Your task to perform on an android device: Open the phone app and click the voicemail tab. Image 0: 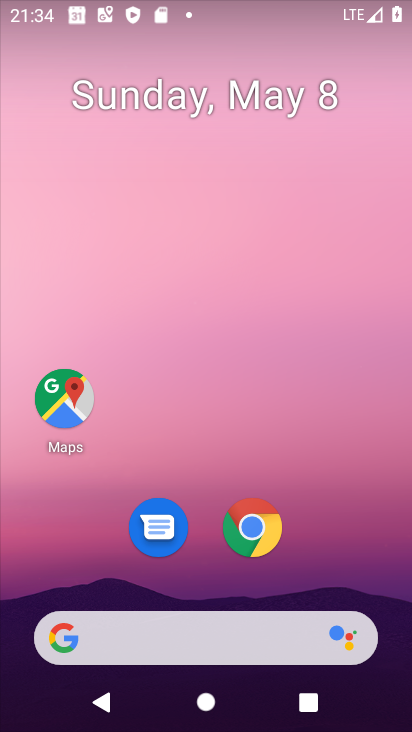
Step 0: drag from (217, 548) to (285, 85)
Your task to perform on an android device: Open the phone app and click the voicemail tab. Image 1: 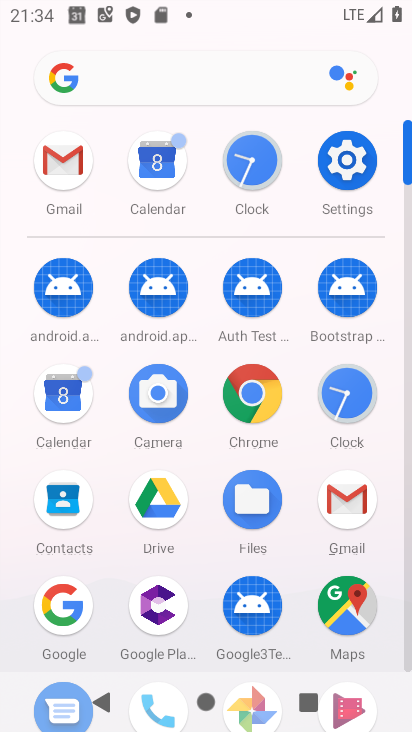
Step 1: drag from (207, 549) to (234, 268)
Your task to perform on an android device: Open the phone app and click the voicemail tab. Image 2: 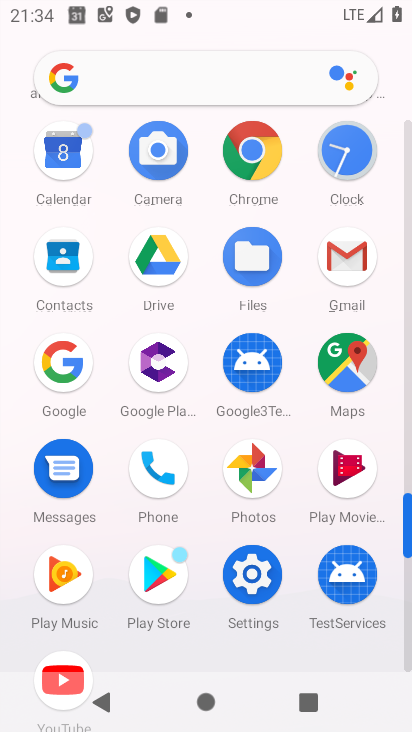
Step 2: click (149, 474)
Your task to perform on an android device: Open the phone app and click the voicemail tab. Image 3: 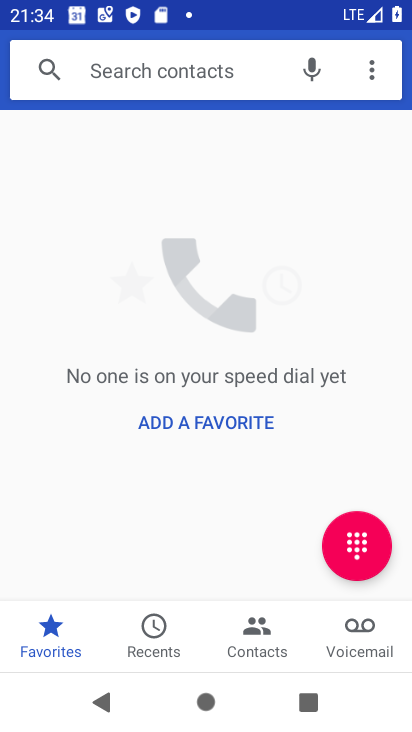
Step 3: click (352, 652)
Your task to perform on an android device: Open the phone app and click the voicemail tab. Image 4: 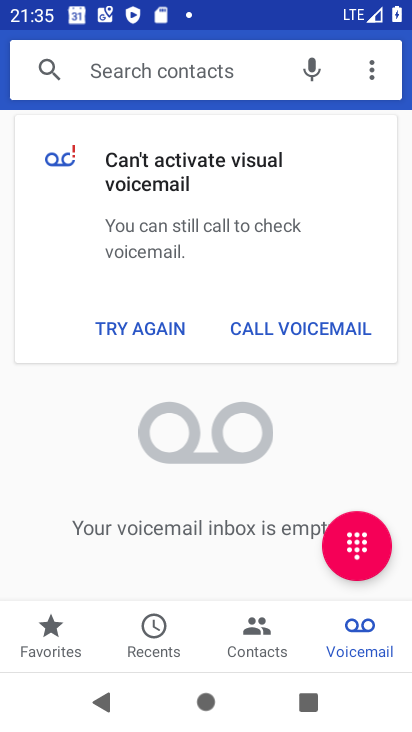
Step 4: task complete